Your task to perform on an android device: How much does a 2 bedroom apartment rent for in Washington DC? Image 0: 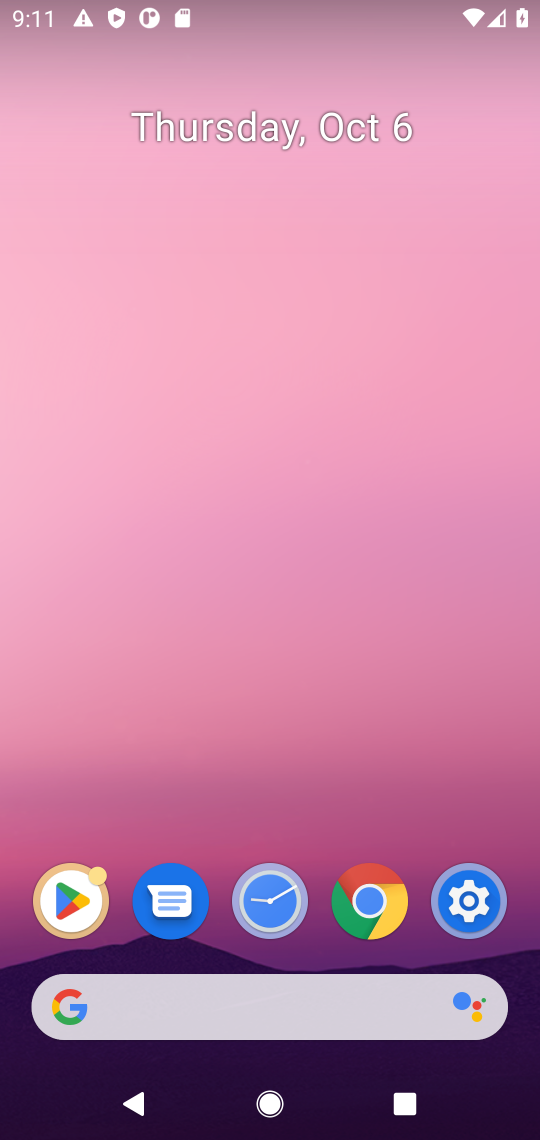
Step 0: click (362, 899)
Your task to perform on an android device: How much does a 2 bedroom apartment rent for in Washington DC? Image 1: 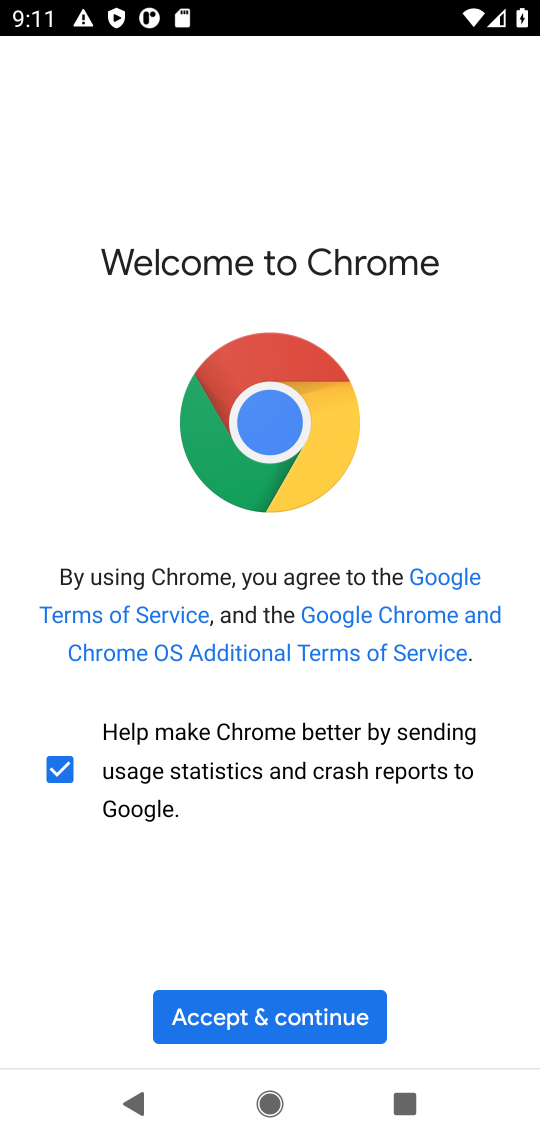
Step 1: click (316, 1008)
Your task to perform on an android device: How much does a 2 bedroom apartment rent for in Washington DC? Image 2: 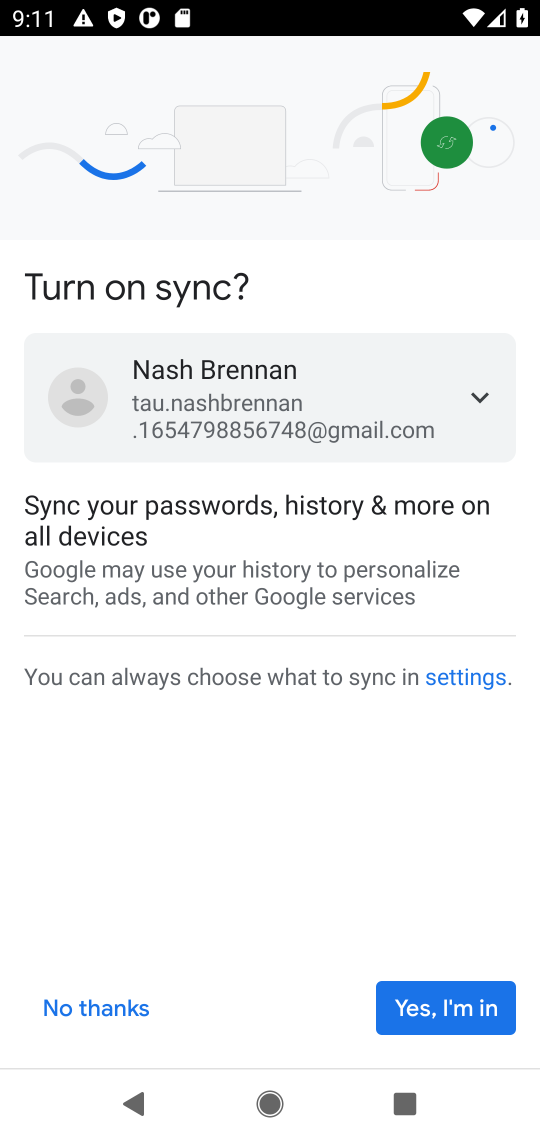
Step 2: click (438, 1008)
Your task to perform on an android device: How much does a 2 bedroom apartment rent for in Washington DC? Image 3: 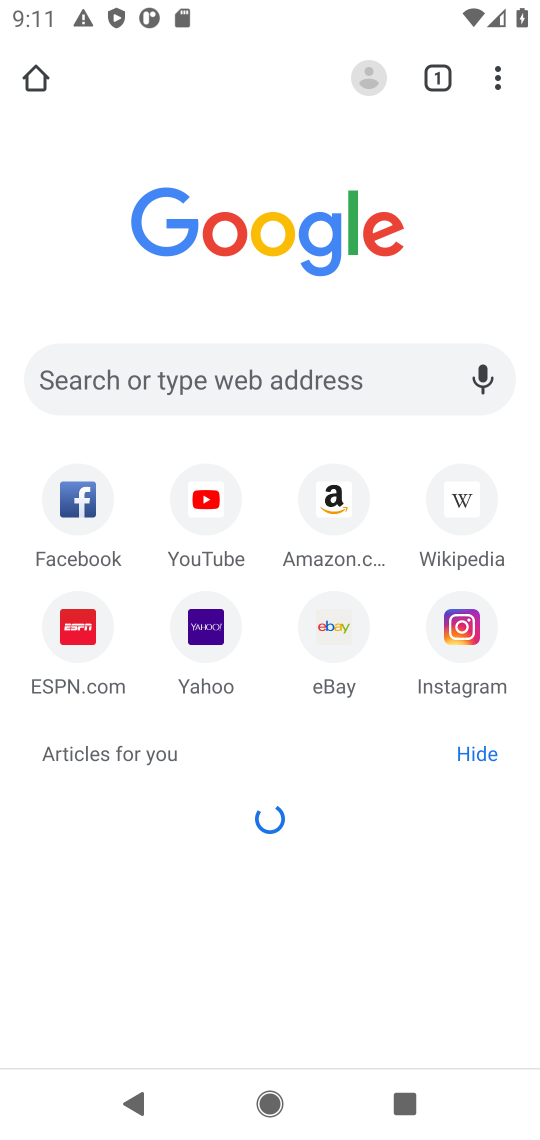
Step 3: click (172, 380)
Your task to perform on an android device: How much does a 2 bedroom apartment rent for in Washington DC? Image 4: 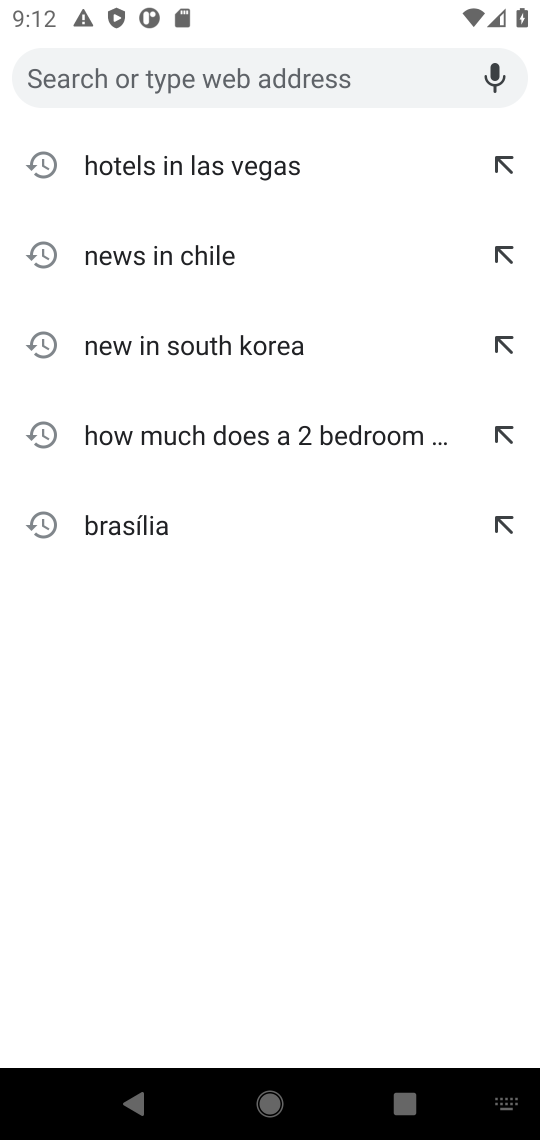
Step 4: click (300, 72)
Your task to perform on an android device: How much does a 2 bedroom apartment rent for in Washington DC? Image 5: 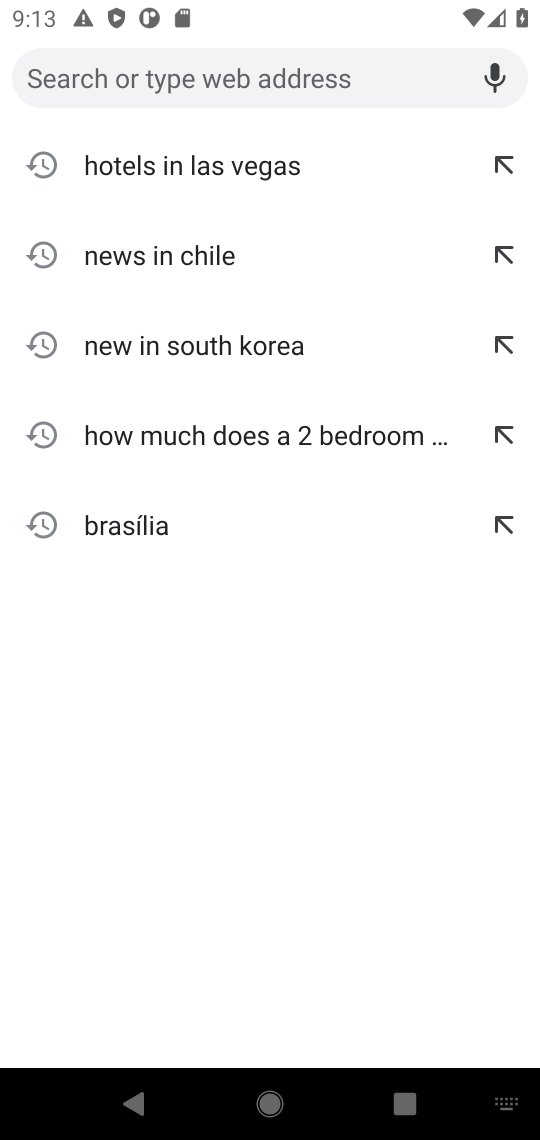
Step 5: type "how much does a 2 bedroom apartment rent for washington dc?"
Your task to perform on an android device: How much does a 2 bedroom apartment rent for in Washington DC? Image 6: 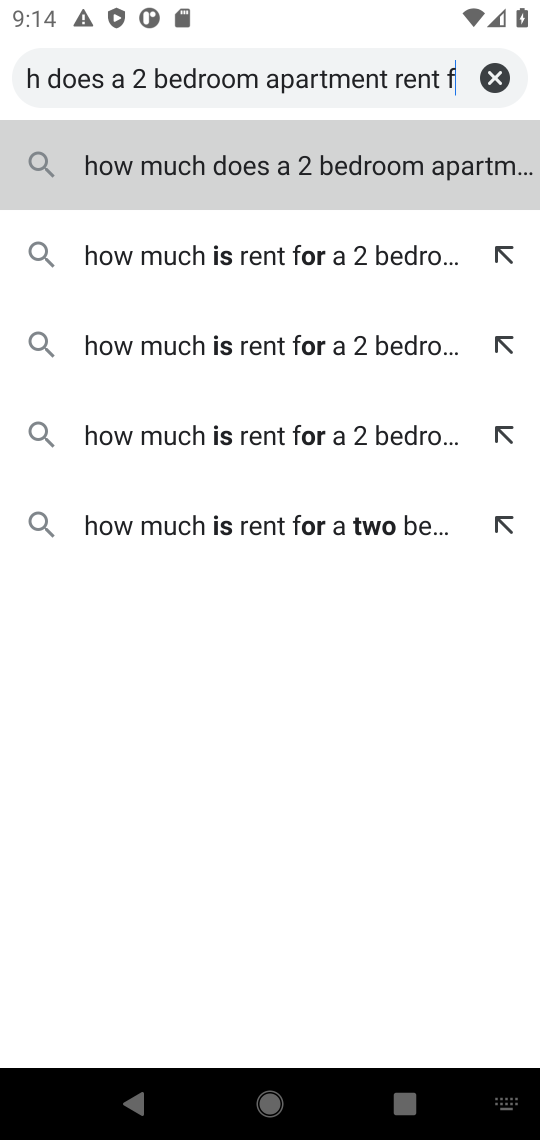
Step 6: click (375, 156)
Your task to perform on an android device: How much does a 2 bedroom apartment rent for in Washington DC? Image 7: 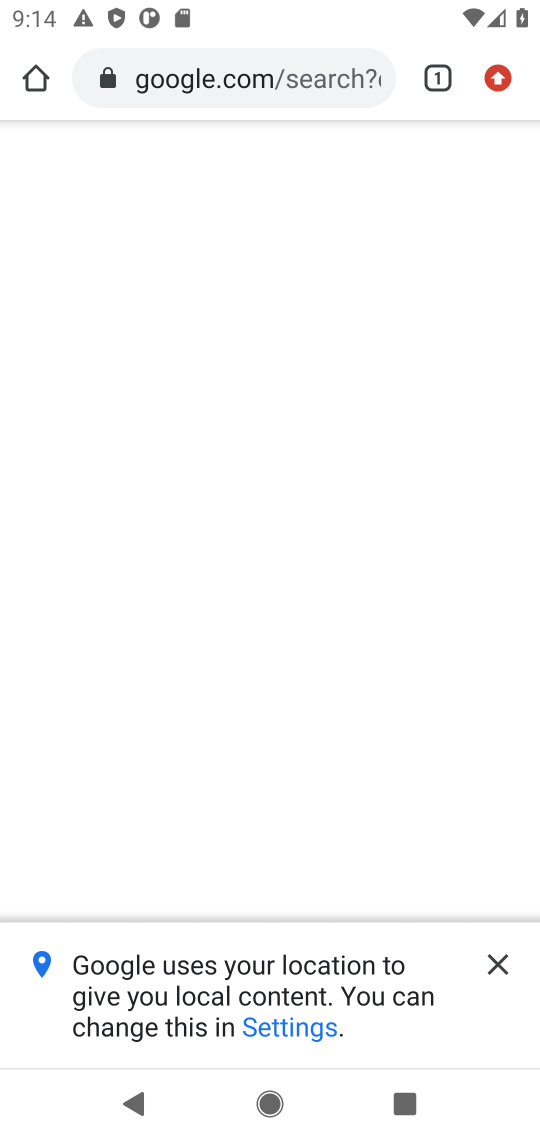
Step 7: task complete